Your task to perform on an android device: Empty the shopping cart on amazon.com. Image 0: 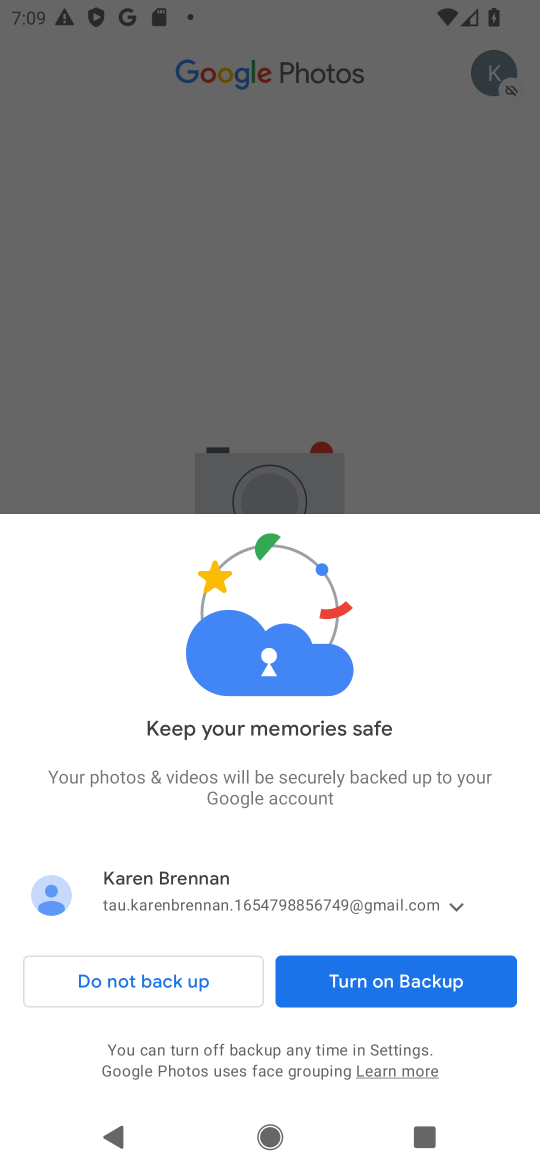
Step 0: press home button
Your task to perform on an android device: Empty the shopping cart on amazon.com. Image 1: 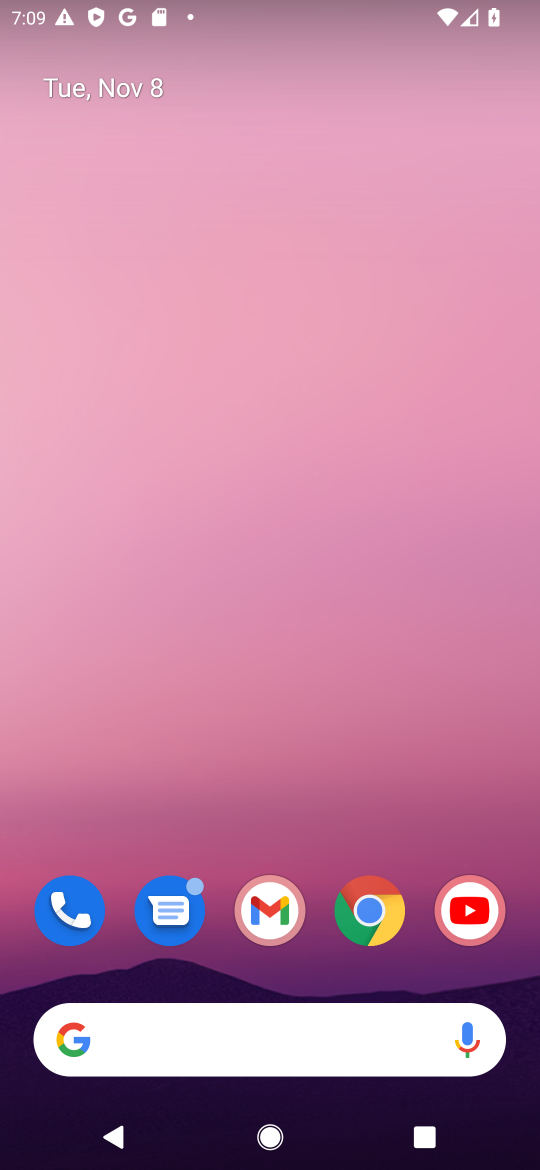
Step 1: click (356, 895)
Your task to perform on an android device: Empty the shopping cart on amazon.com. Image 2: 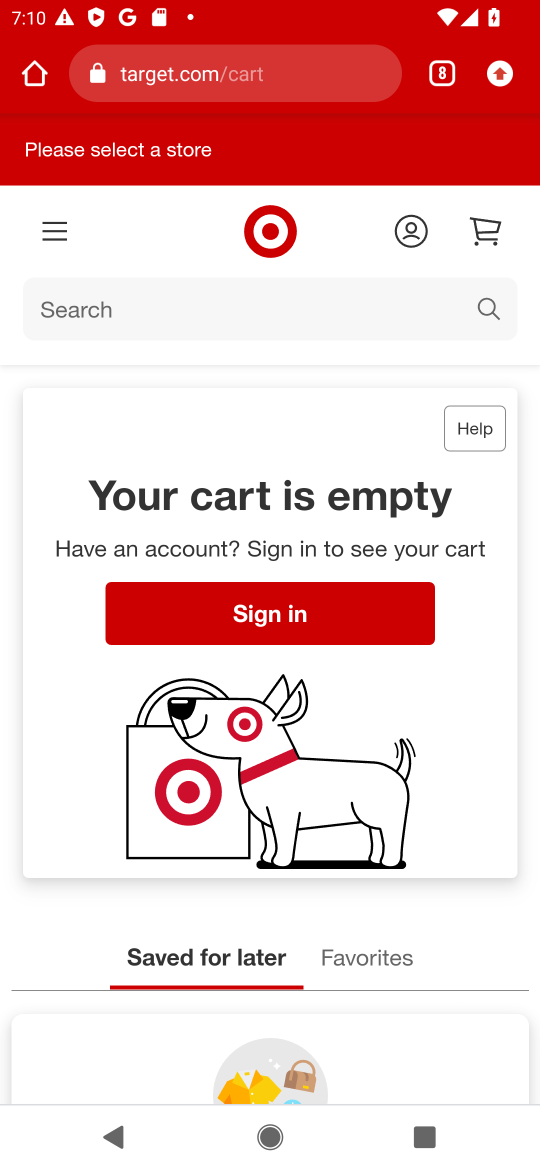
Step 2: click (445, 79)
Your task to perform on an android device: Empty the shopping cart on amazon.com. Image 3: 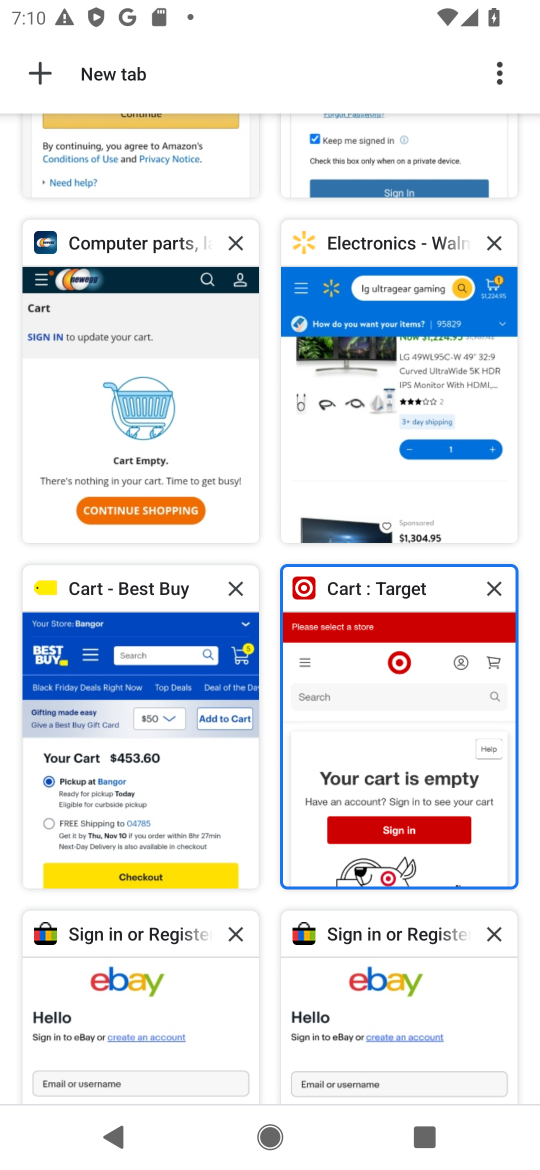
Step 3: click (202, 176)
Your task to perform on an android device: Empty the shopping cart on amazon.com. Image 4: 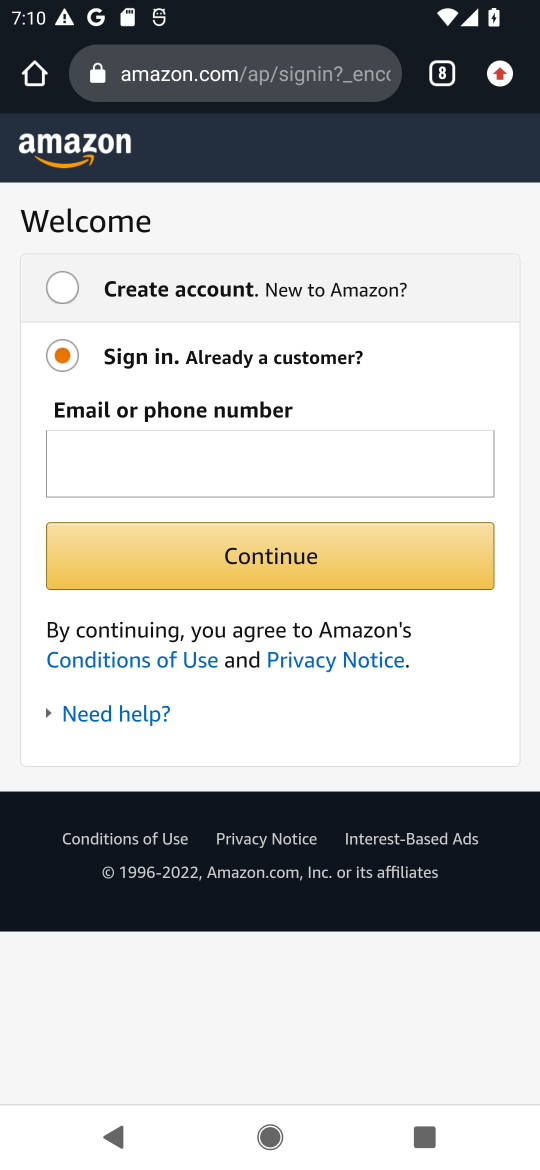
Step 4: press back button
Your task to perform on an android device: Empty the shopping cart on amazon.com. Image 5: 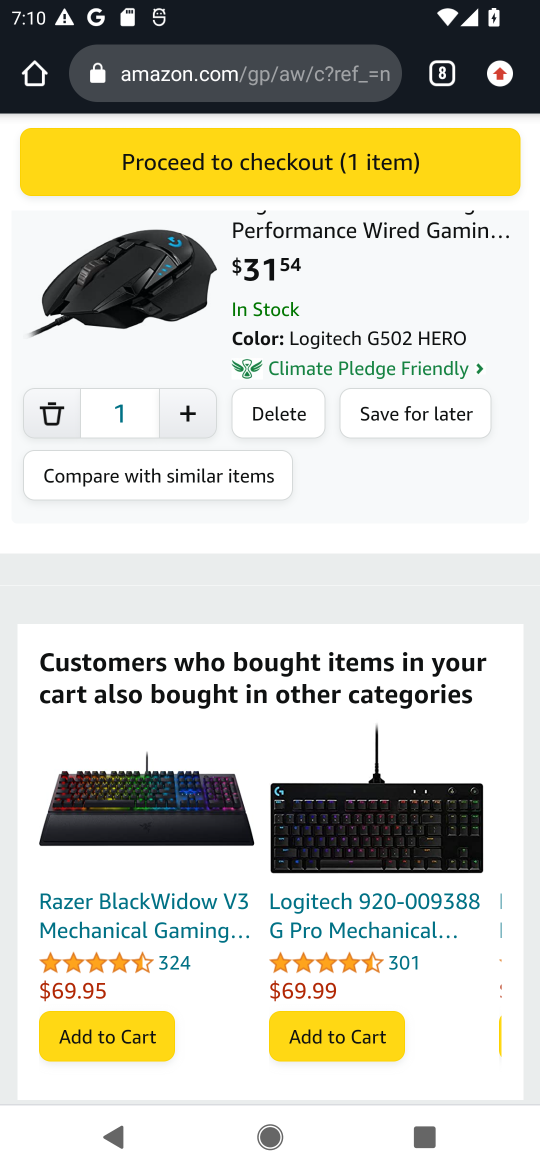
Step 5: click (261, 415)
Your task to perform on an android device: Empty the shopping cart on amazon.com. Image 6: 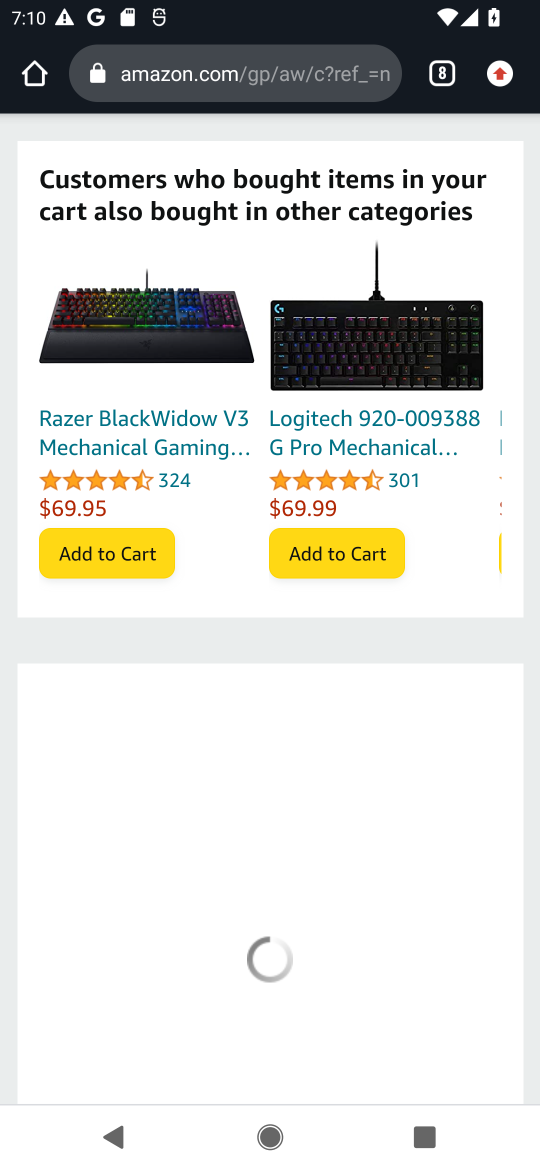
Step 6: task complete